Your task to perform on an android device: read, delete, or share a saved page in the chrome app Image 0: 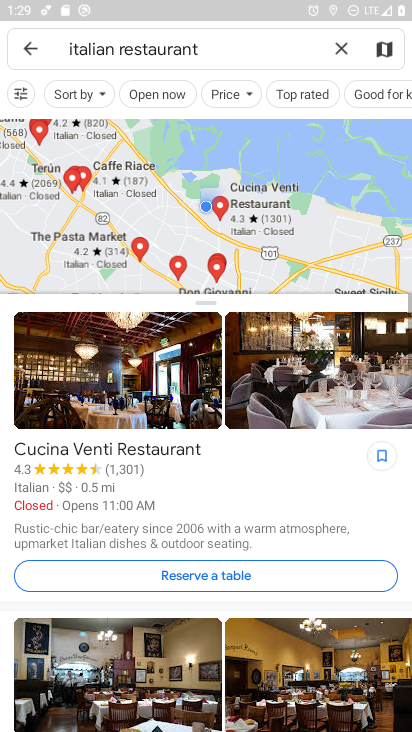
Step 0: press home button
Your task to perform on an android device: read, delete, or share a saved page in the chrome app Image 1: 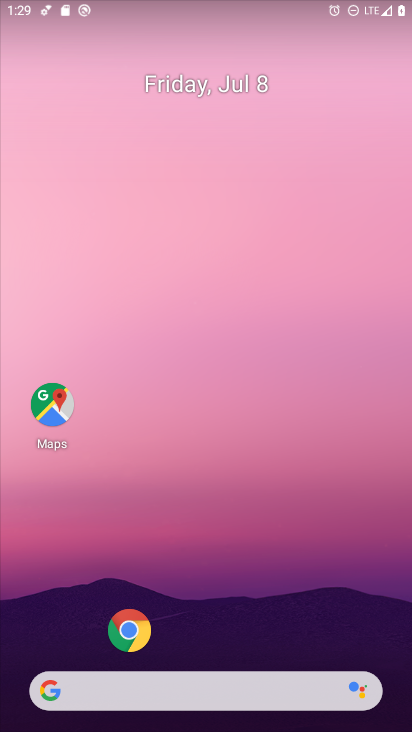
Step 1: drag from (285, 678) to (297, 32)
Your task to perform on an android device: read, delete, or share a saved page in the chrome app Image 2: 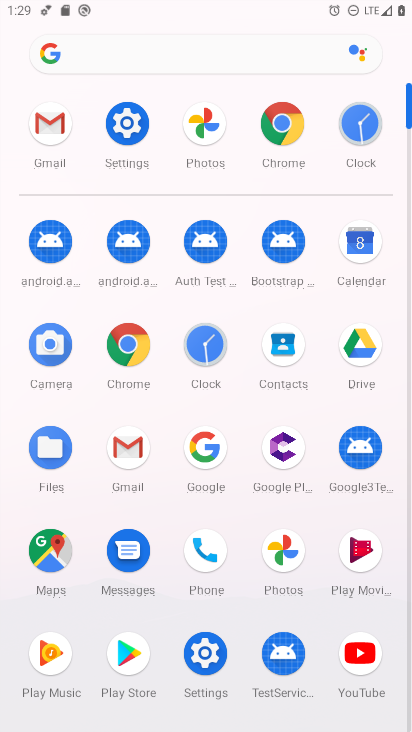
Step 2: click (138, 342)
Your task to perform on an android device: read, delete, or share a saved page in the chrome app Image 3: 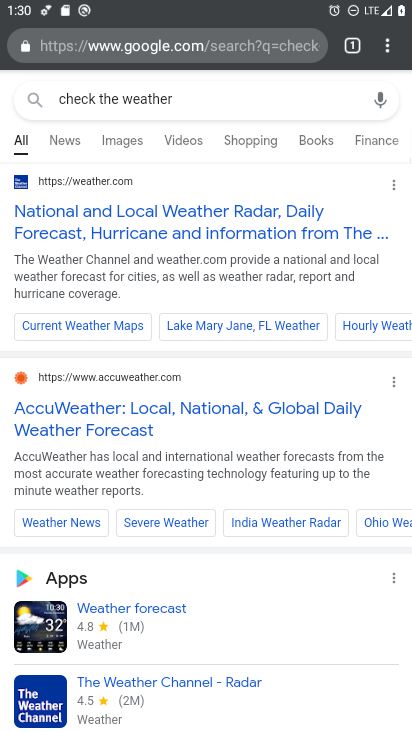
Step 3: drag from (385, 44) to (224, 265)
Your task to perform on an android device: read, delete, or share a saved page in the chrome app Image 4: 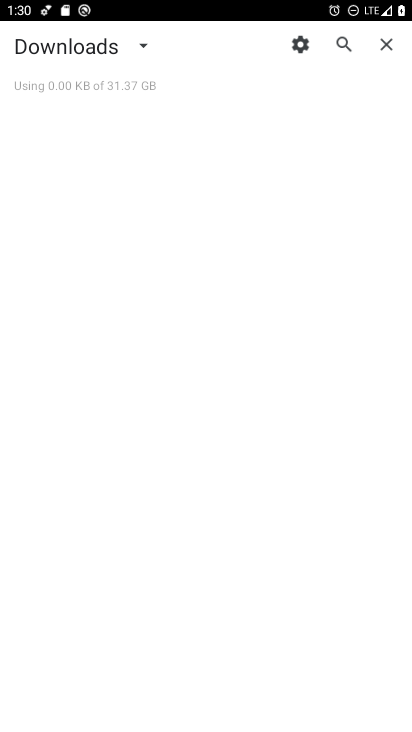
Step 4: click (137, 40)
Your task to perform on an android device: read, delete, or share a saved page in the chrome app Image 5: 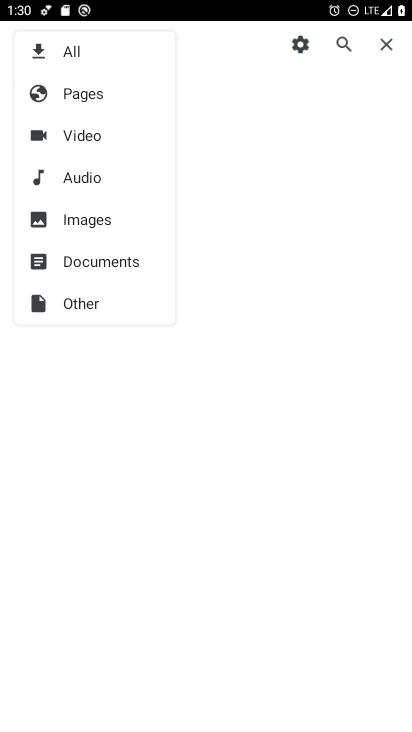
Step 5: task complete